Your task to perform on an android device: add a contact in the contacts app Image 0: 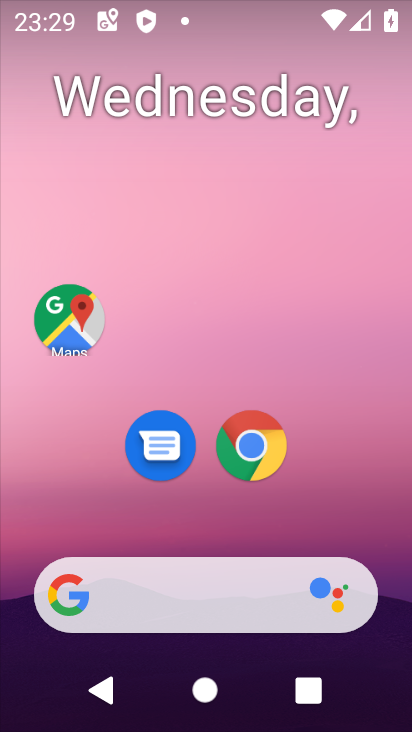
Step 0: drag from (245, 499) to (252, 416)
Your task to perform on an android device: add a contact in the contacts app Image 1: 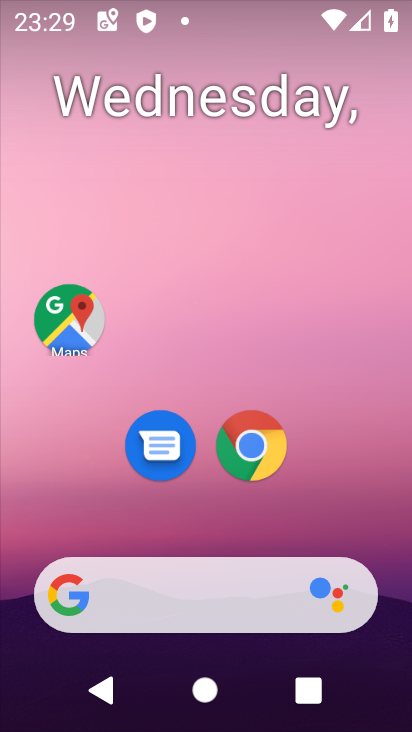
Step 1: drag from (260, 318) to (273, 175)
Your task to perform on an android device: add a contact in the contacts app Image 2: 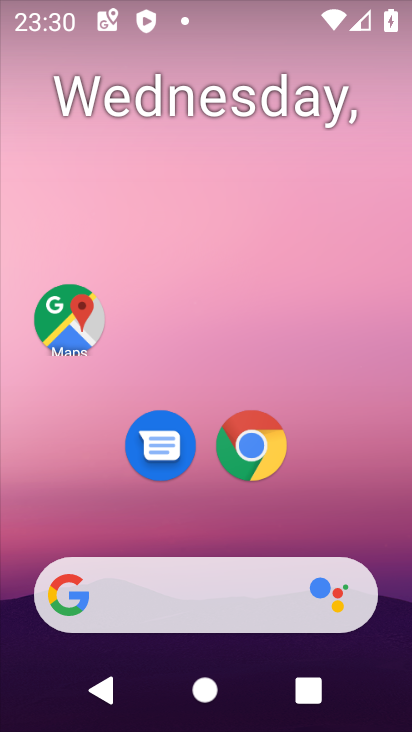
Step 2: drag from (334, 398) to (319, 355)
Your task to perform on an android device: add a contact in the contacts app Image 3: 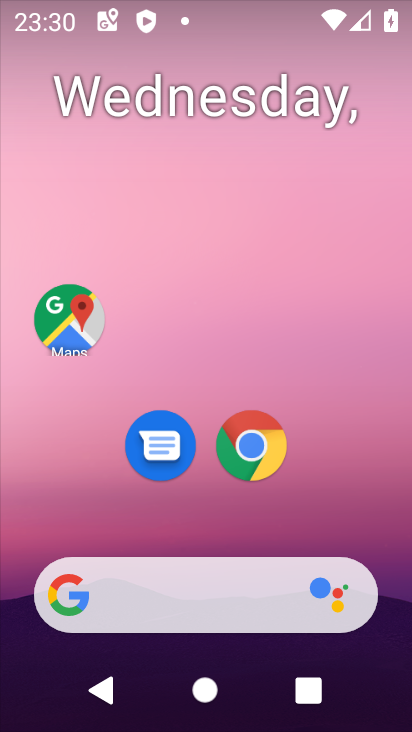
Step 3: drag from (202, 543) to (239, 199)
Your task to perform on an android device: add a contact in the contacts app Image 4: 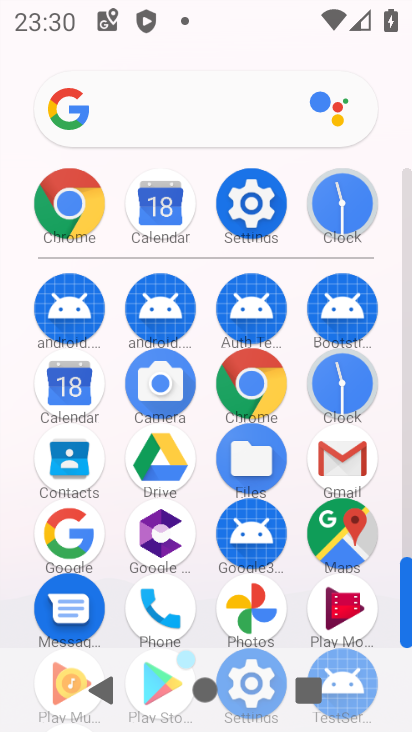
Step 4: click (158, 610)
Your task to perform on an android device: add a contact in the contacts app Image 5: 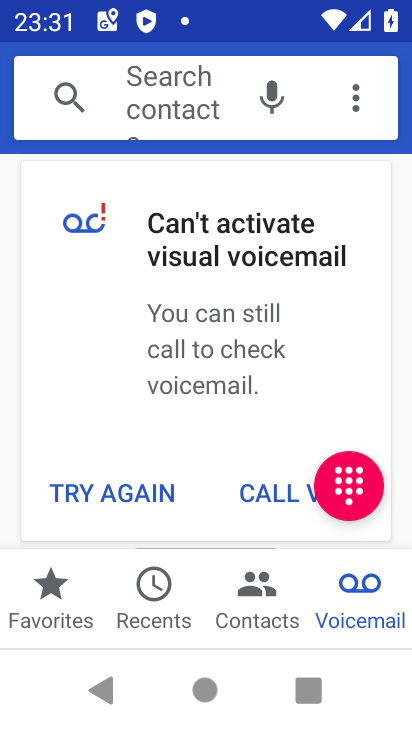
Step 5: click (43, 582)
Your task to perform on an android device: add a contact in the contacts app Image 6: 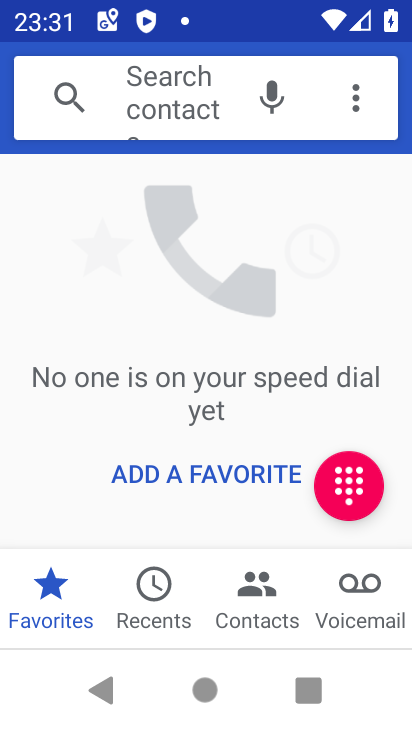
Step 6: click (236, 462)
Your task to perform on an android device: add a contact in the contacts app Image 7: 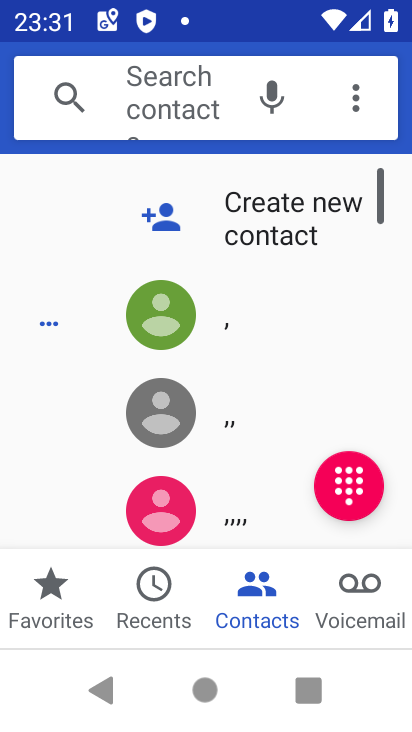
Step 7: click (302, 241)
Your task to perform on an android device: add a contact in the contacts app Image 8: 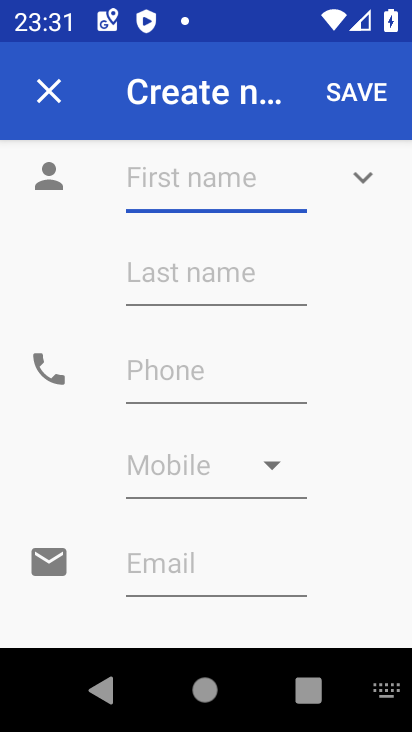
Step 8: click (235, 190)
Your task to perform on an android device: add a contact in the contacts app Image 9: 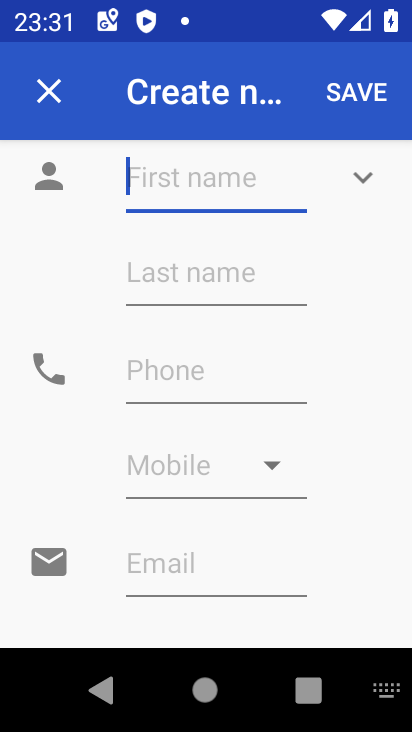
Step 9: type "gghghghg"
Your task to perform on an android device: add a contact in the contacts app Image 10: 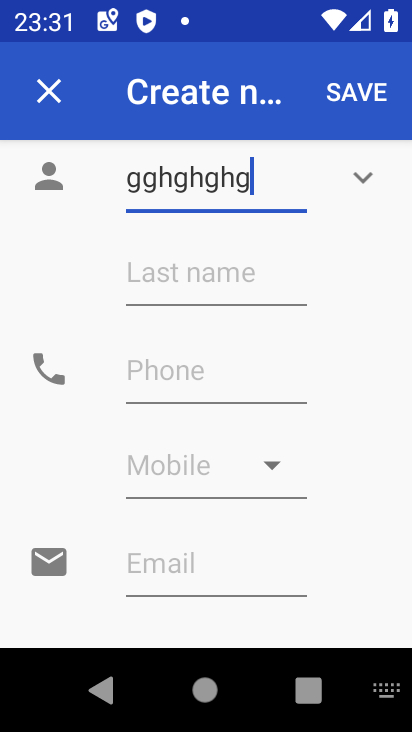
Step 10: click (210, 379)
Your task to perform on an android device: add a contact in the contacts app Image 11: 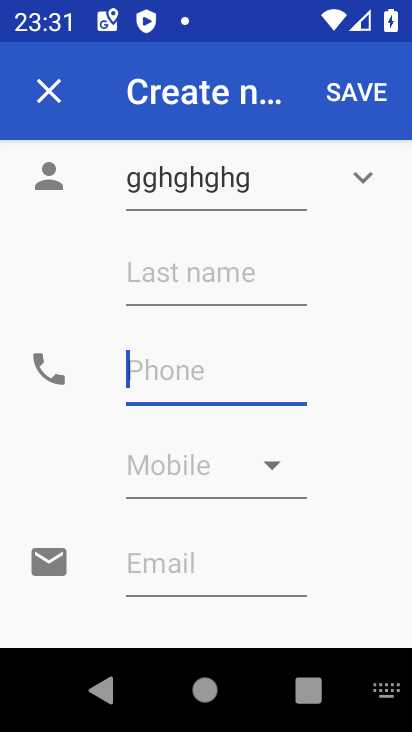
Step 11: type "76767"
Your task to perform on an android device: add a contact in the contacts app Image 12: 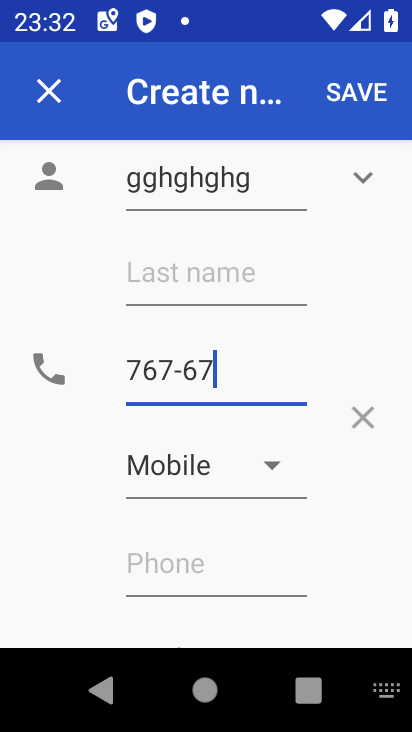
Step 12: click (369, 95)
Your task to perform on an android device: add a contact in the contacts app Image 13: 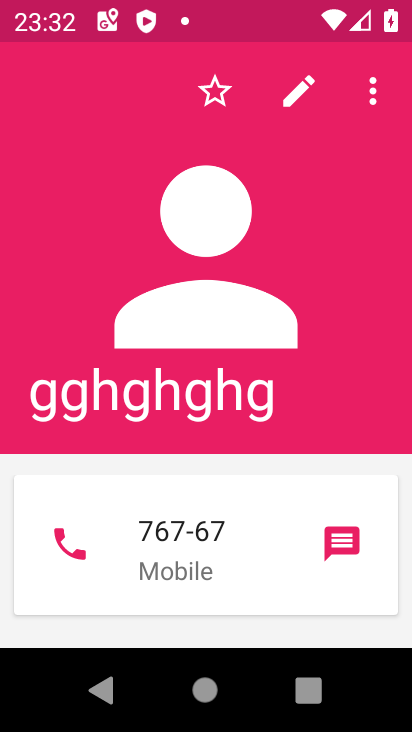
Step 13: task complete